Your task to perform on an android device: check out phone information Image 0: 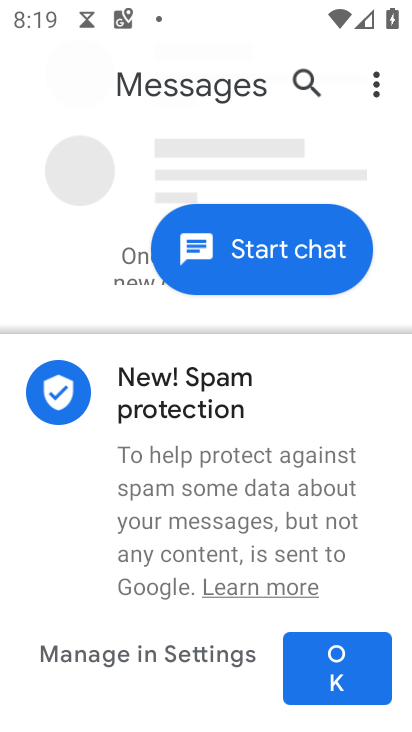
Step 0: press home button
Your task to perform on an android device: check out phone information Image 1: 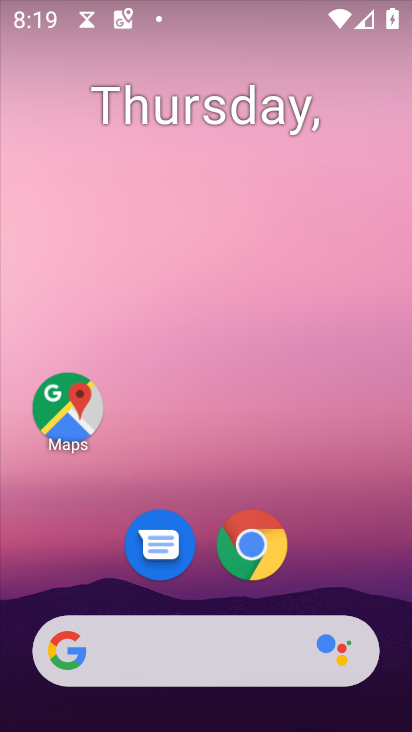
Step 1: drag from (328, 559) to (273, 20)
Your task to perform on an android device: check out phone information Image 2: 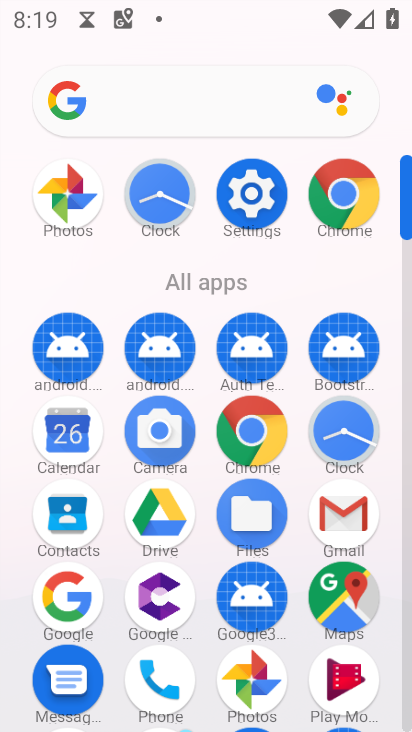
Step 2: click (250, 192)
Your task to perform on an android device: check out phone information Image 3: 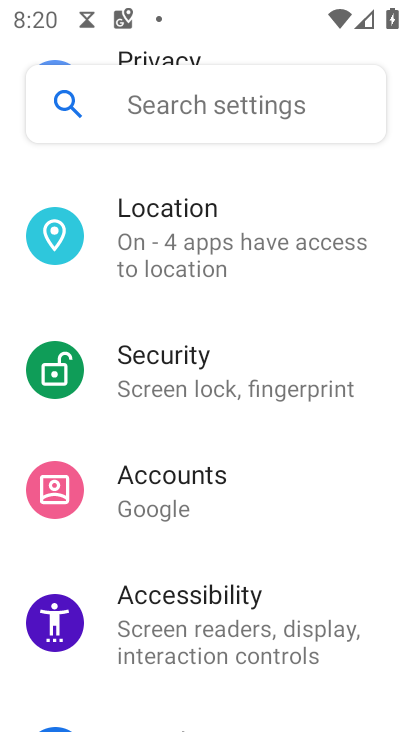
Step 3: drag from (264, 555) to (265, 358)
Your task to perform on an android device: check out phone information Image 4: 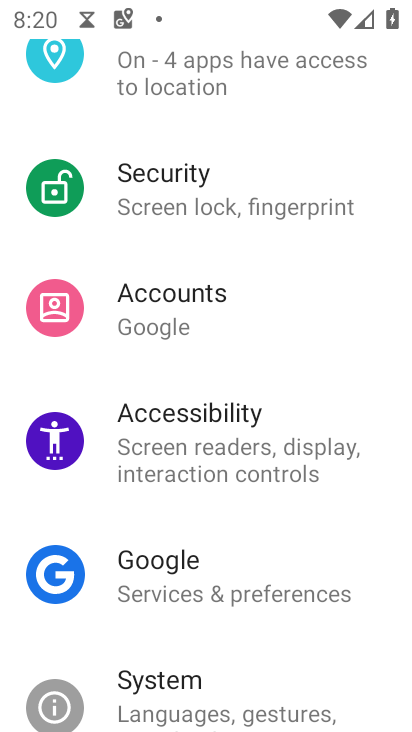
Step 4: drag from (219, 536) to (234, 394)
Your task to perform on an android device: check out phone information Image 5: 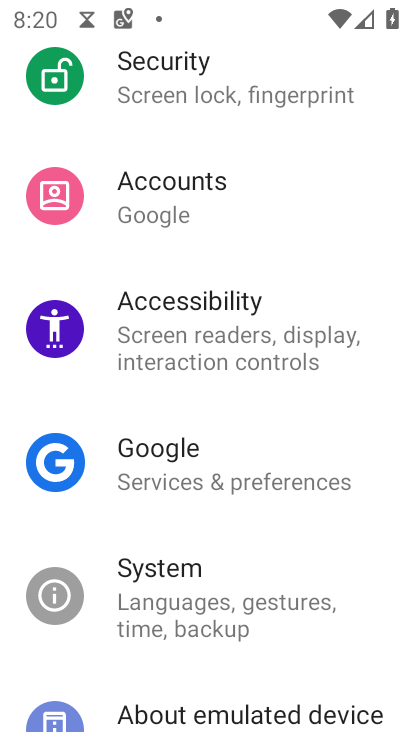
Step 5: drag from (235, 541) to (261, 385)
Your task to perform on an android device: check out phone information Image 6: 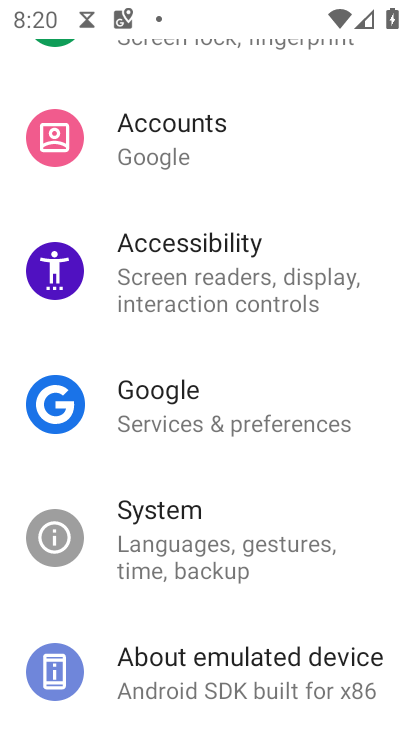
Step 6: click (216, 661)
Your task to perform on an android device: check out phone information Image 7: 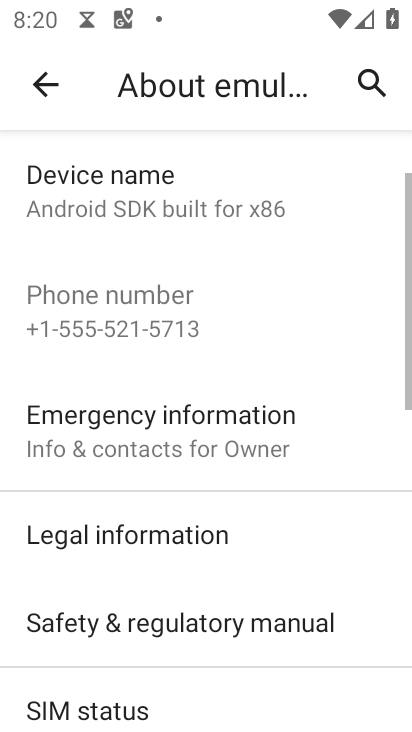
Step 7: task complete